Your task to perform on an android device: open a bookmark in the chrome app Image 0: 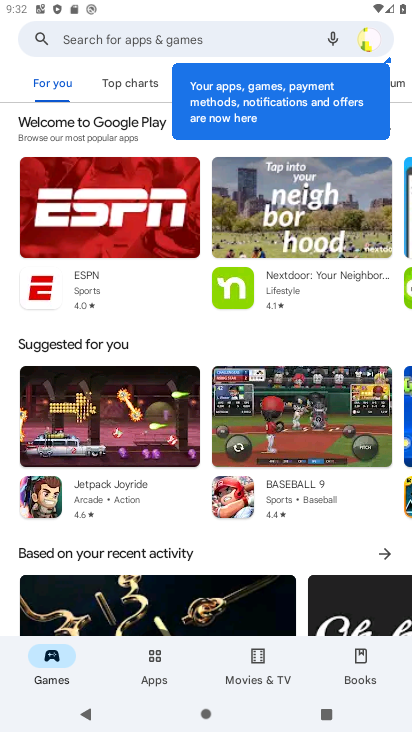
Step 0: task complete